Your task to perform on an android device: turn on data saver in the chrome app Image 0: 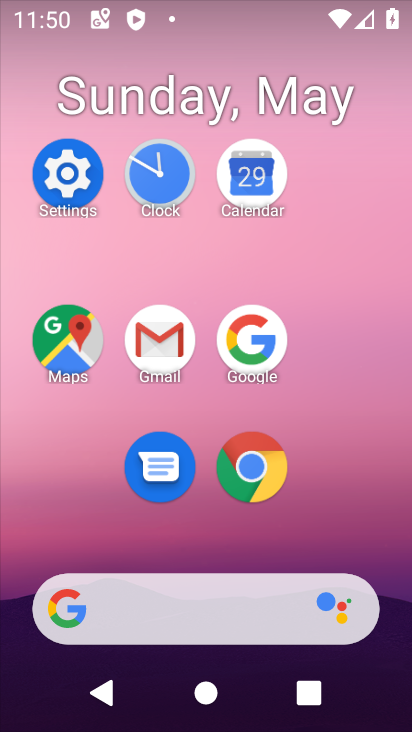
Step 0: click (252, 464)
Your task to perform on an android device: turn on data saver in the chrome app Image 1: 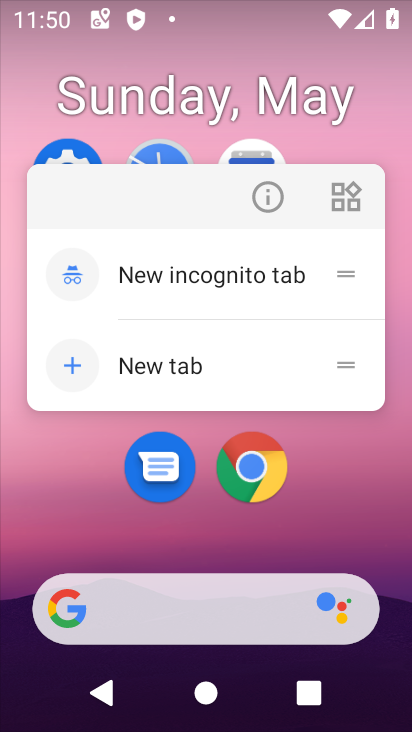
Step 1: click (344, 542)
Your task to perform on an android device: turn on data saver in the chrome app Image 2: 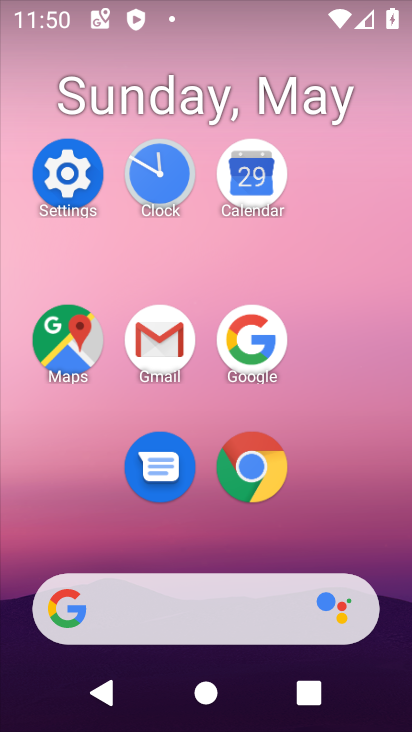
Step 2: click (267, 467)
Your task to perform on an android device: turn on data saver in the chrome app Image 3: 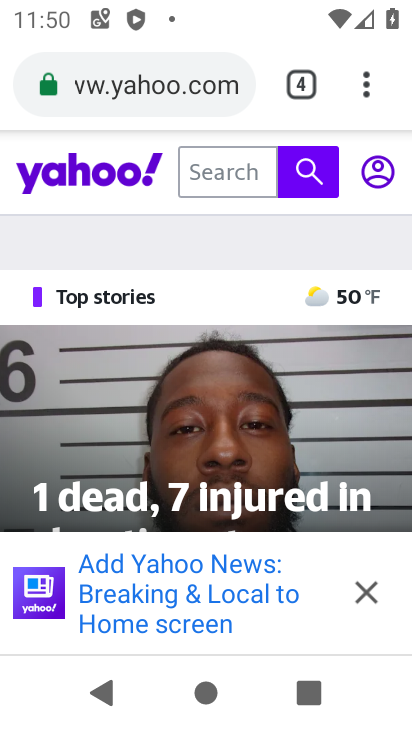
Step 3: click (374, 87)
Your task to perform on an android device: turn on data saver in the chrome app Image 4: 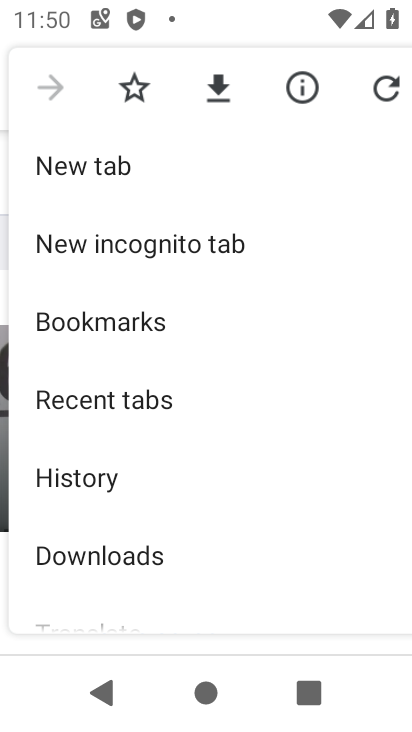
Step 4: drag from (185, 556) to (394, 293)
Your task to perform on an android device: turn on data saver in the chrome app Image 5: 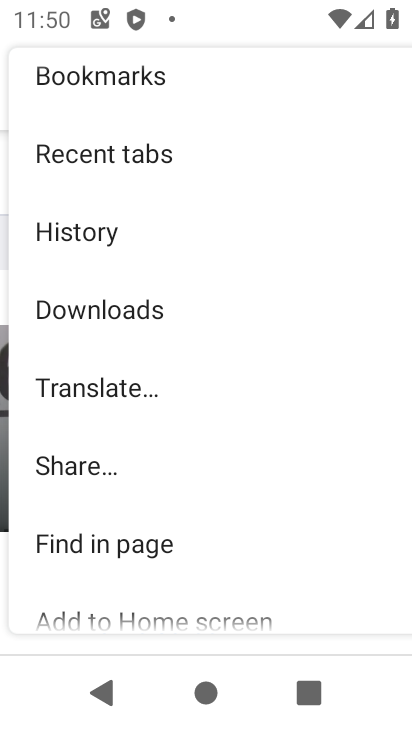
Step 5: drag from (207, 526) to (255, 136)
Your task to perform on an android device: turn on data saver in the chrome app Image 6: 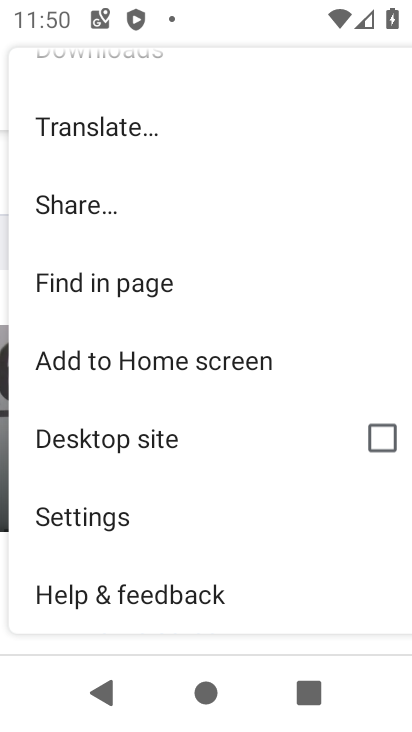
Step 6: click (177, 523)
Your task to perform on an android device: turn on data saver in the chrome app Image 7: 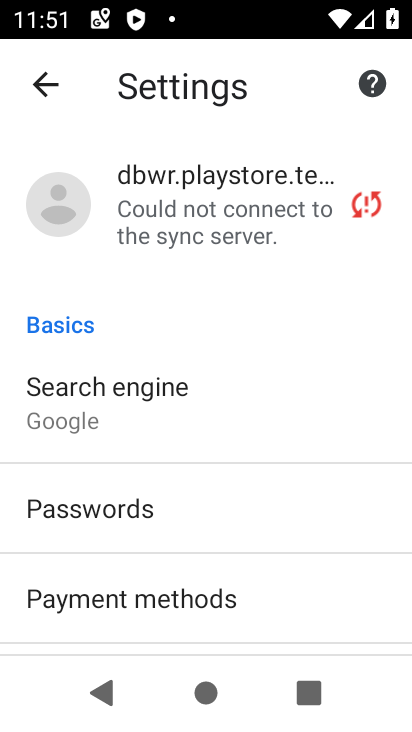
Step 7: drag from (269, 556) to (230, 171)
Your task to perform on an android device: turn on data saver in the chrome app Image 8: 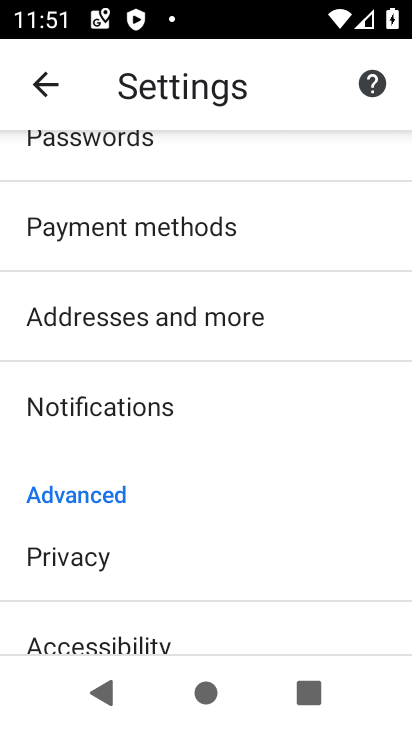
Step 8: drag from (324, 592) to (300, 187)
Your task to perform on an android device: turn on data saver in the chrome app Image 9: 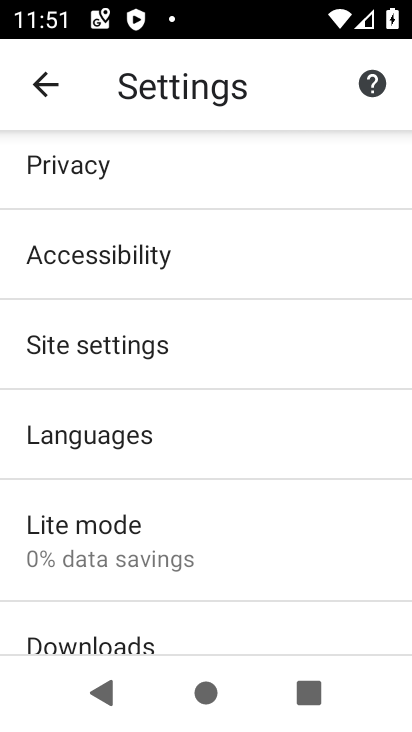
Step 9: click (226, 558)
Your task to perform on an android device: turn on data saver in the chrome app Image 10: 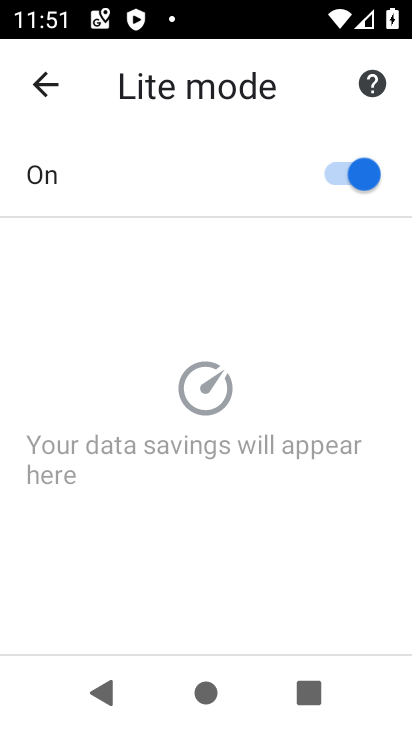
Step 10: task complete